Your task to perform on an android device: open wifi settings Image 0: 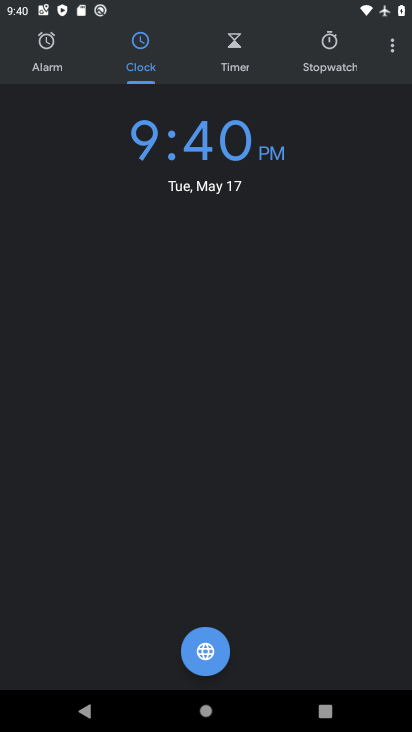
Step 0: press home button
Your task to perform on an android device: open wifi settings Image 1: 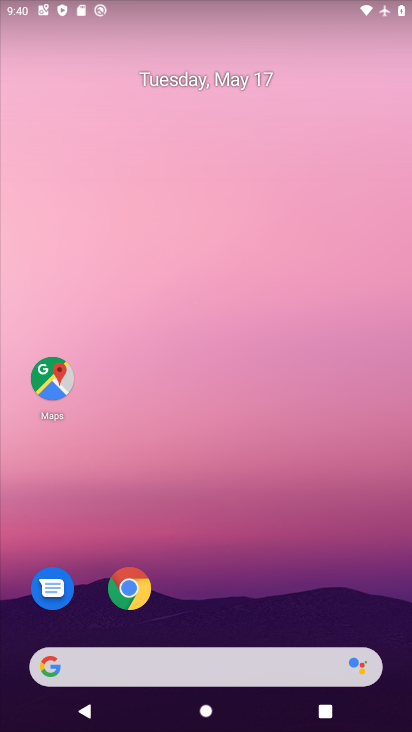
Step 1: drag from (192, 638) to (168, 113)
Your task to perform on an android device: open wifi settings Image 2: 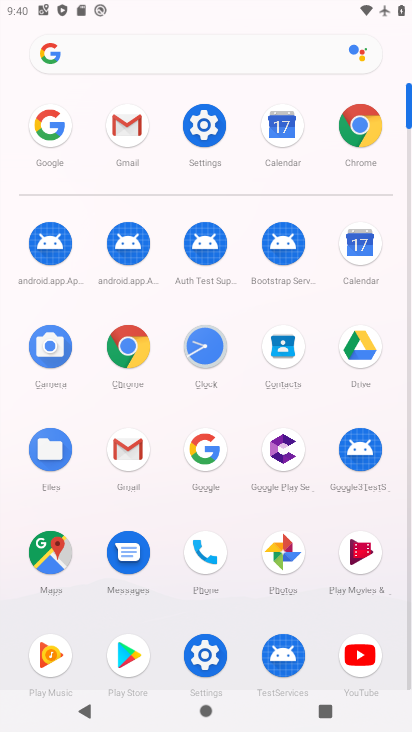
Step 2: click (196, 145)
Your task to perform on an android device: open wifi settings Image 3: 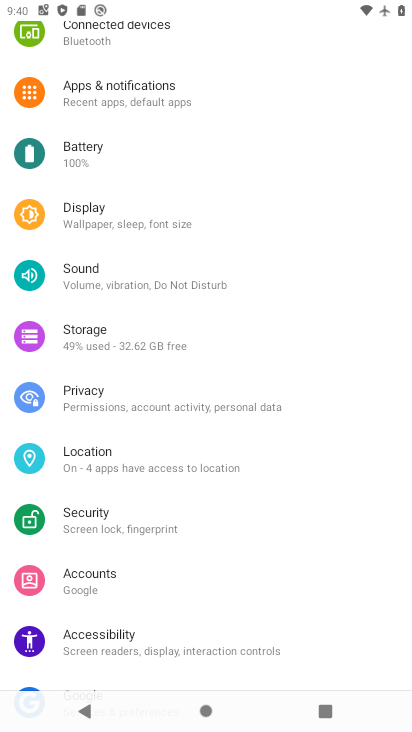
Step 3: drag from (194, 143) to (184, 597)
Your task to perform on an android device: open wifi settings Image 4: 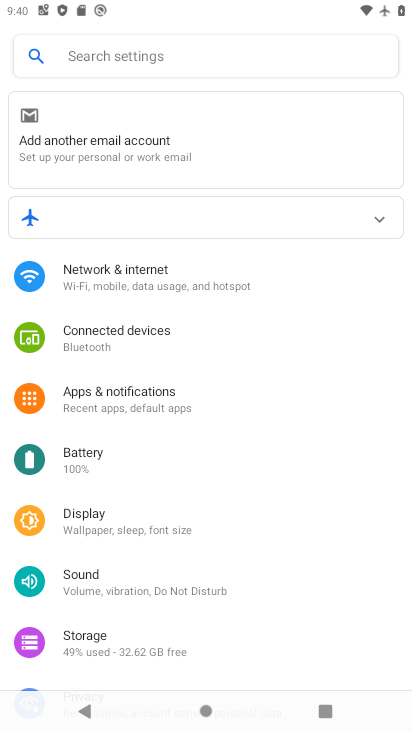
Step 4: click (87, 264)
Your task to perform on an android device: open wifi settings Image 5: 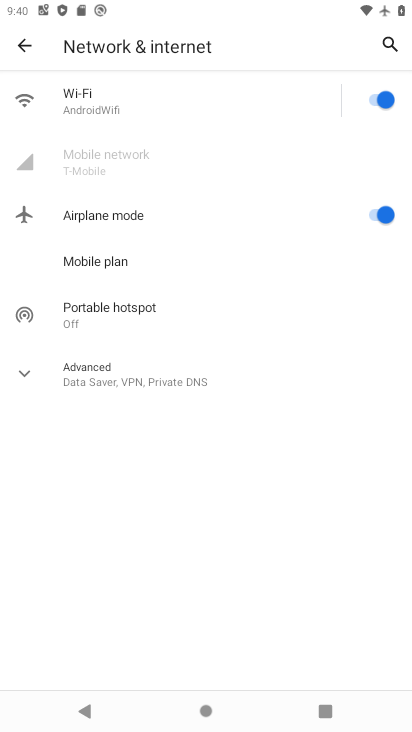
Step 5: click (136, 124)
Your task to perform on an android device: open wifi settings Image 6: 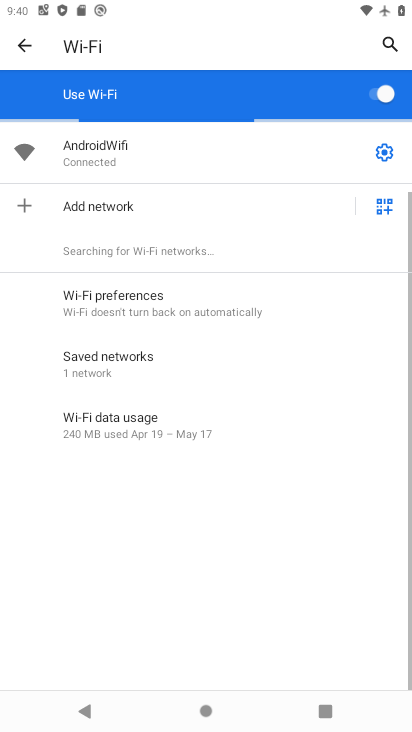
Step 6: task complete